Your task to perform on an android device: Open Amazon Image 0: 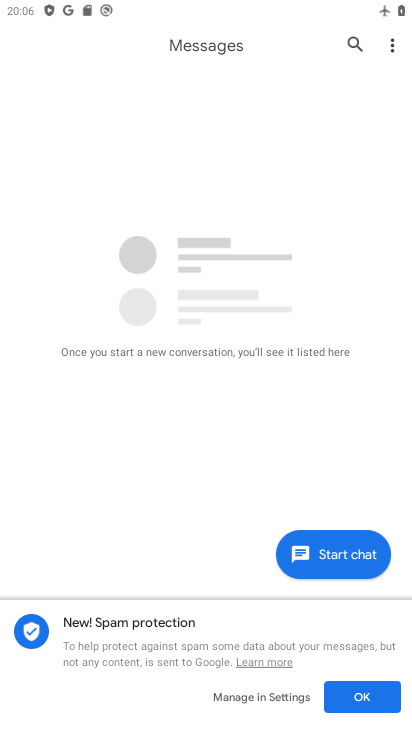
Step 0: press home button
Your task to perform on an android device: Open Amazon Image 1: 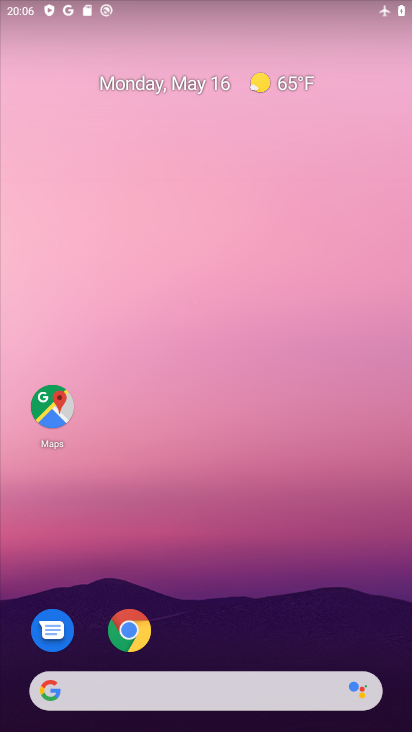
Step 1: click (126, 632)
Your task to perform on an android device: Open Amazon Image 2: 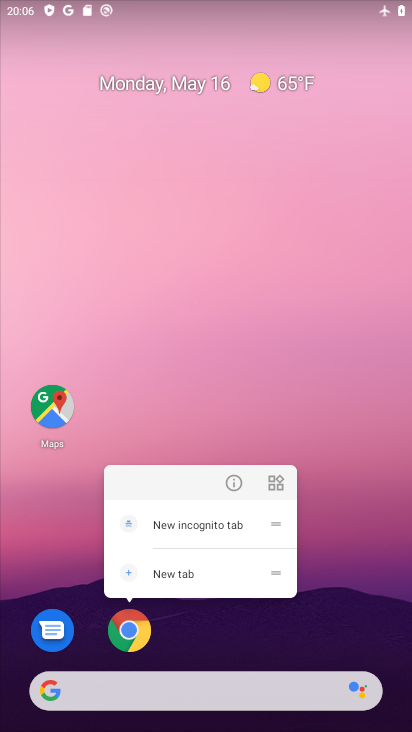
Step 2: click (129, 626)
Your task to perform on an android device: Open Amazon Image 3: 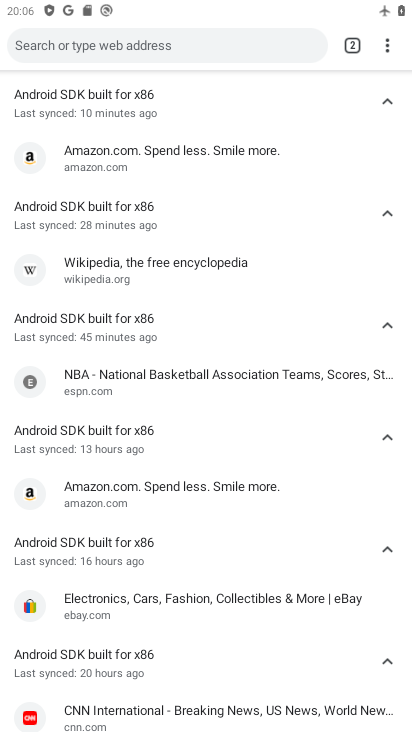
Step 3: click (353, 45)
Your task to perform on an android device: Open Amazon Image 4: 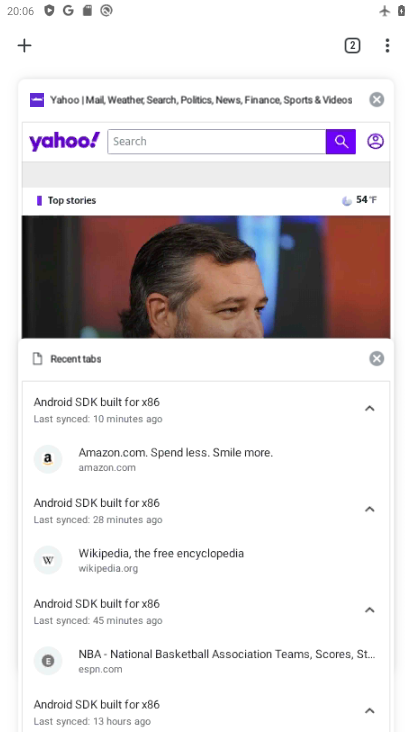
Step 4: click (26, 46)
Your task to perform on an android device: Open Amazon Image 5: 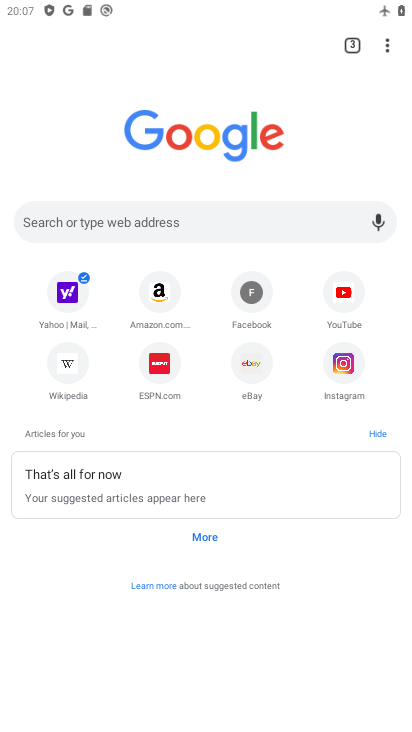
Step 5: click (147, 284)
Your task to perform on an android device: Open Amazon Image 6: 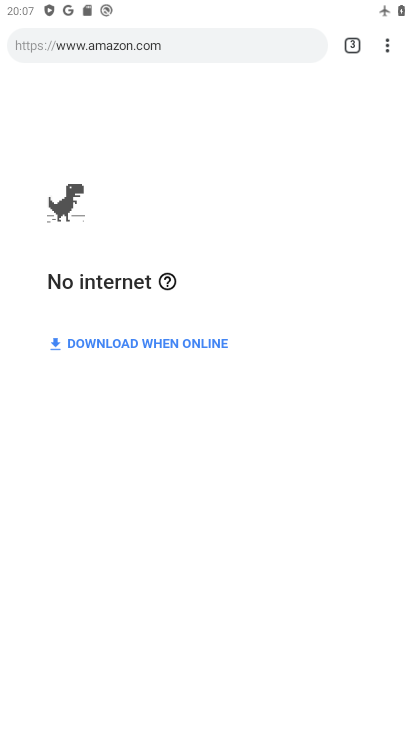
Step 6: task complete